Your task to perform on an android device: open wifi settings Image 0: 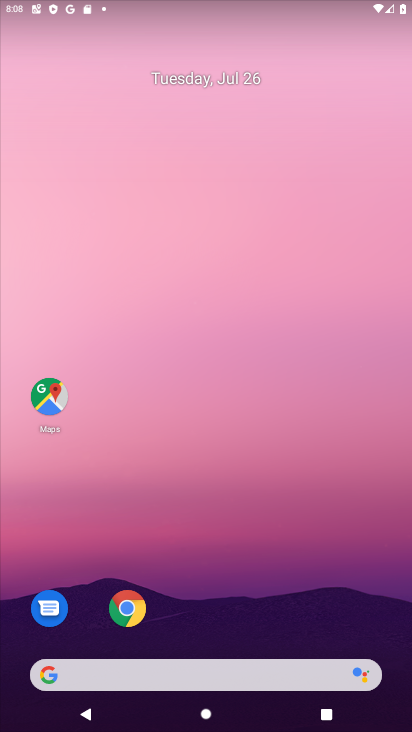
Step 0: drag from (211, 709) to (153, 198)
Your task to perform on an android device: open wifi settings Image 1: 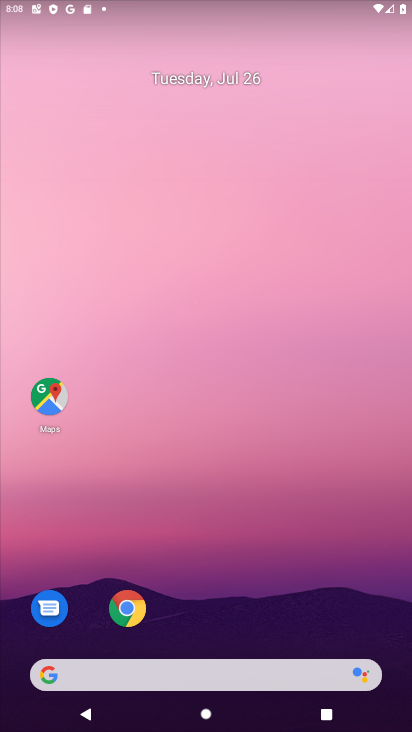
Step 1: drag from (258, 532) to (236, 63)
Your task to perform on an android device: open wifi settings Image 2: 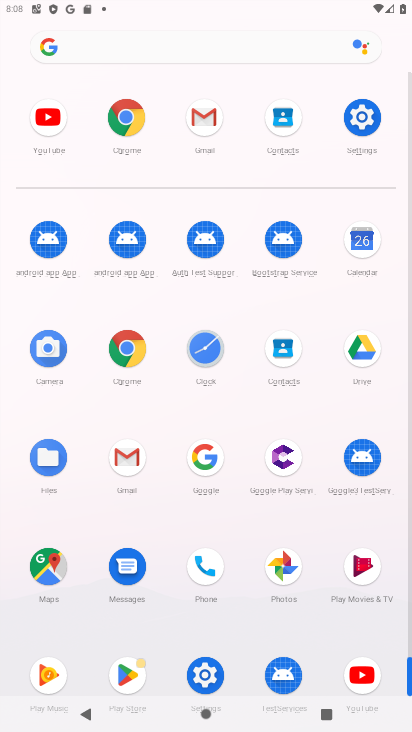
Step 2: drag from (212, 433) to (143, 73)
Your task to perform on an android device: open wifi settings Image 3: 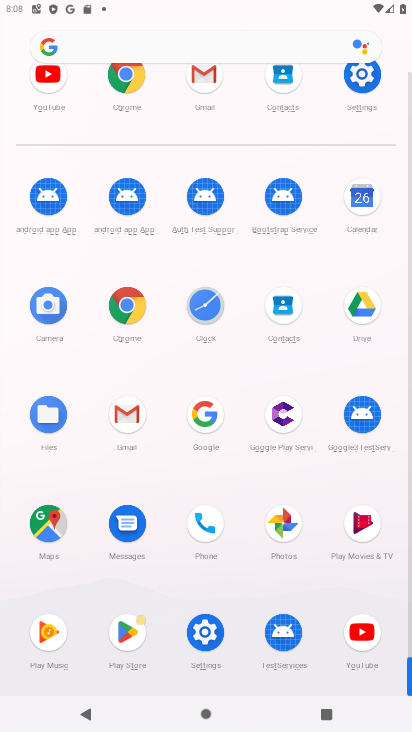
Step 3: click (199, 636)
Your task to perform on an android device: open wifi settings Image 4: 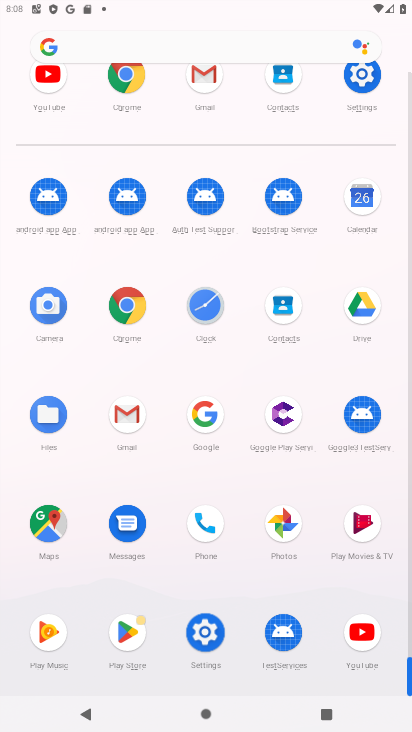
Step 4: click (204, 639)
Your task to perform on an android device: open wifi settings Image 5: 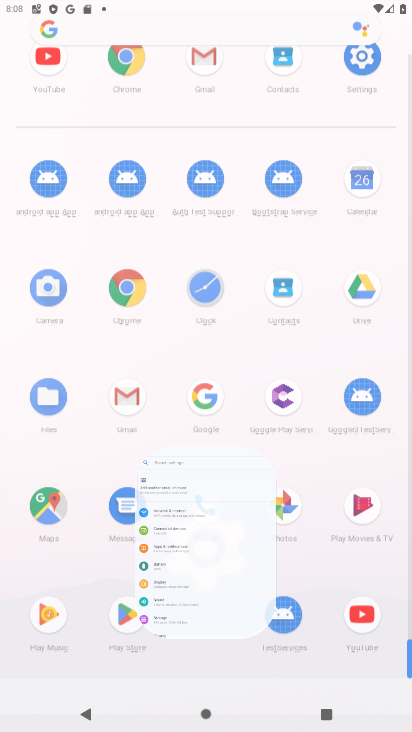
Step 5: click (207, 640)
Your task to perform on an android device: open wifi settings Image 6: 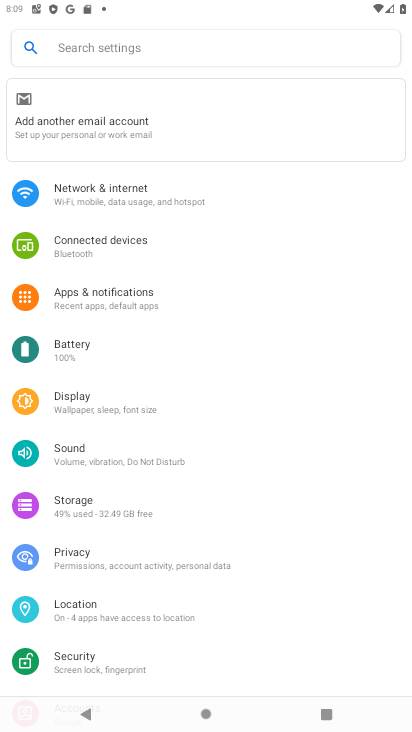
Step 6: click (113, 197)
Your task to perform on an android device: open wifi settings Image 7: 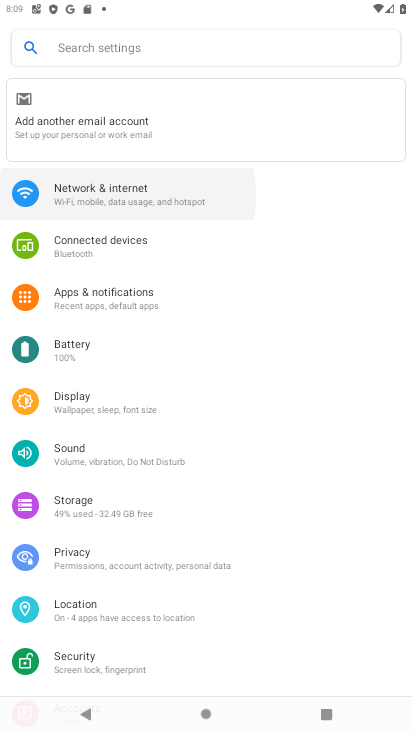
Step 7: click (113, 197)
Your task to perform on an android device: open wifi settings Image 8: 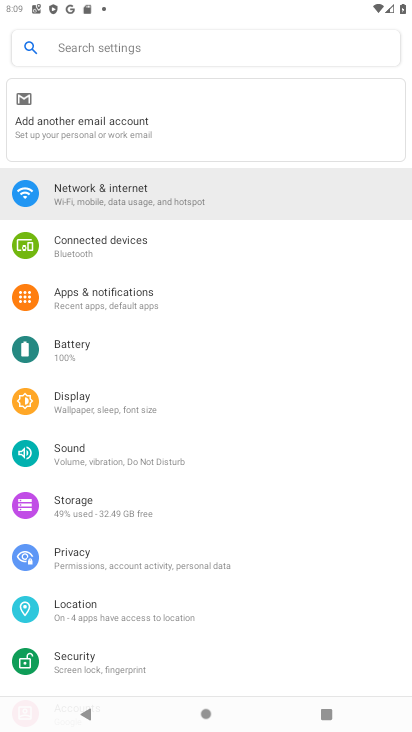
Step 8: click (113, 197)
Your task to perform on an android device: open wifi settings Image 9: 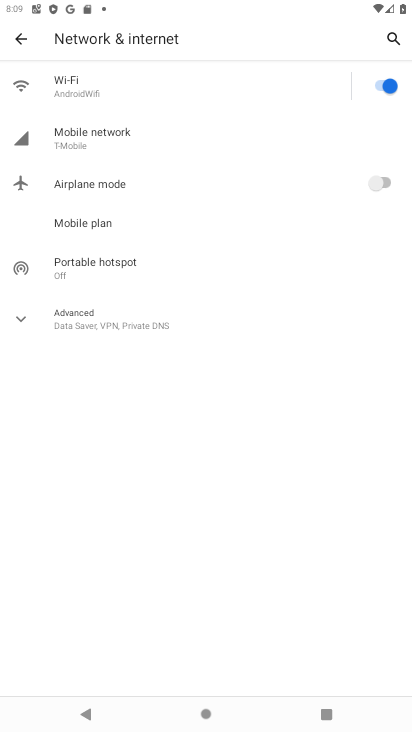
Step 9: task complete